Your task to perform on an android device: turn on improve location accuracy Image 0: 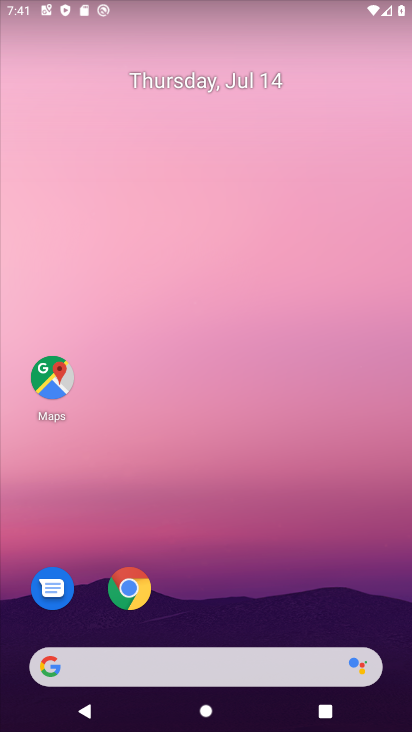
Step 0: drag from (363, 519) to (303, 39)
Your task to perform on an android device: turn on improve location accuracy Image 1: 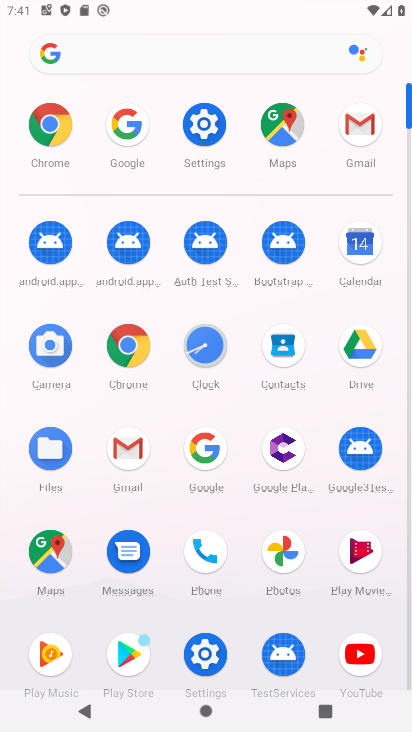
Step 1: click (207, 121)
Your task to perform on an android device: turn on improve location accuracy Image 2: 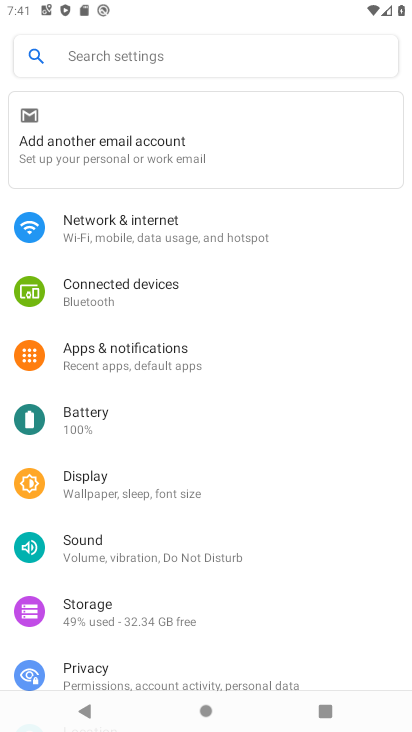
Step 2: drag from (129, 637) to (158, 141)
Your task to perform on an android device: turn on improve location accuracy Image 3: 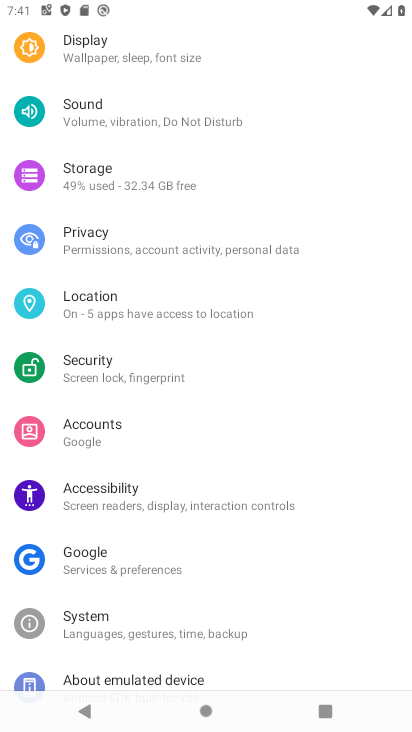
Step 3: click (107, 311)
Your task to perform on an android device: turn on improve location accuracy Image 4: 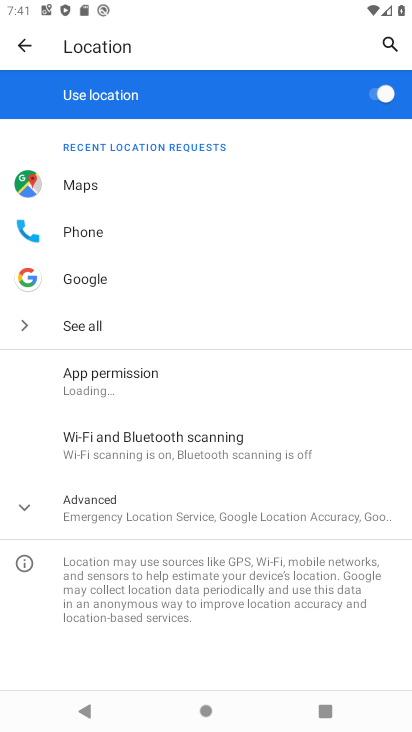
Step 4: click (99, 510)
Your task to perform on an android device: turn on improve location accuracy Image 5: 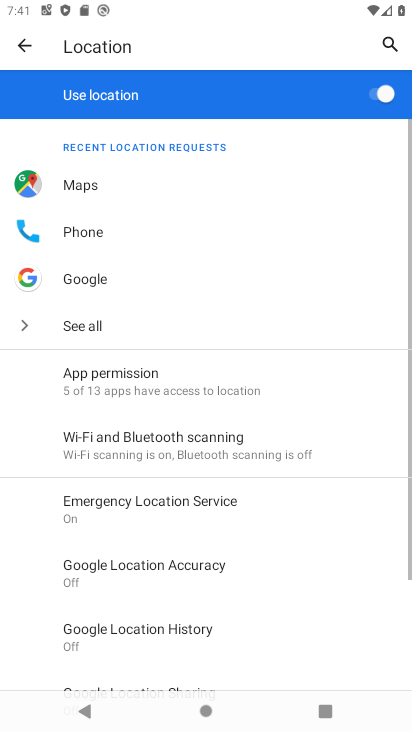
Step 5: click (144, 573)
Your task to perform on an android device: turn on improve location accuracy Image 6: 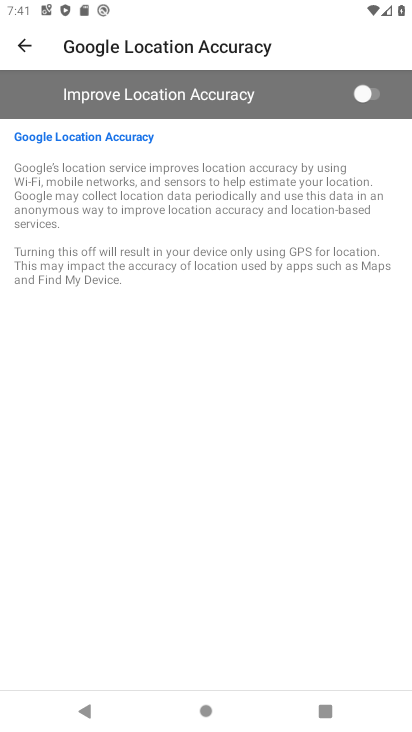
Step 6: click (370, 99)
Your task to perform on an android device: turn on improve location accuracy Image 7: 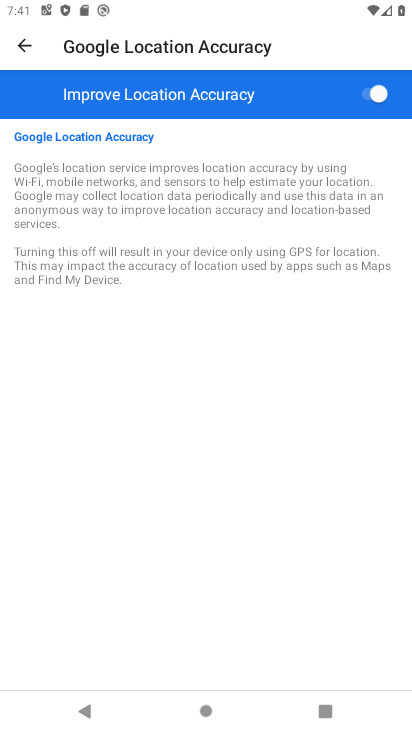
Step 7: task complete